Your task to perform on an android device: open the mobile data screen to see how much data has been used Image 0: 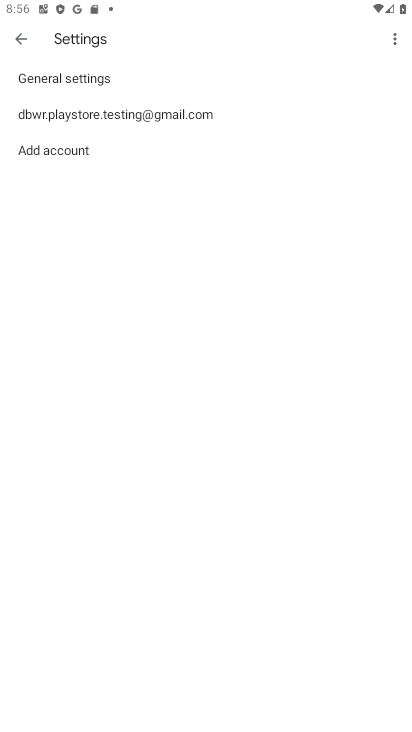
Step 0: press home button
Your task to perform on an android device: open the mobile data screen to see how much data has been used Image 1: 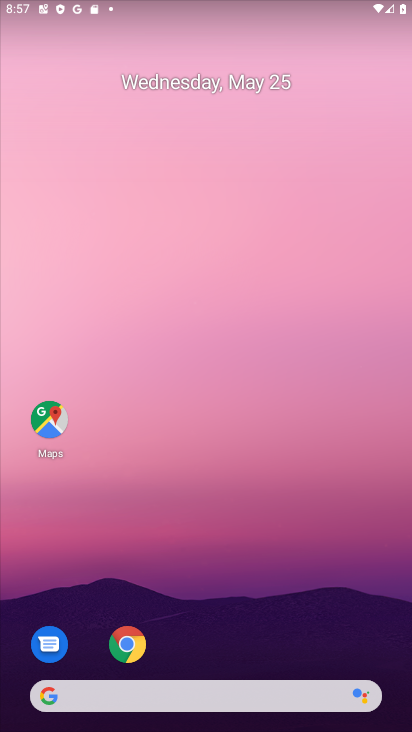
Step 1: drag from (226, 668) to (213, 98)
Your task to perform on an android device: open the mobile data screen to see how much data has been used Image 2: 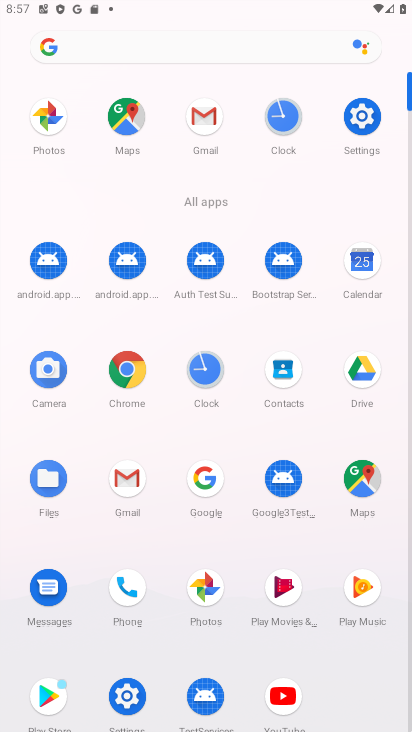
Step 2: click (359, 110)
Your task to perform on an android device: open the mobile data screen to see how much data has been used Image 3: 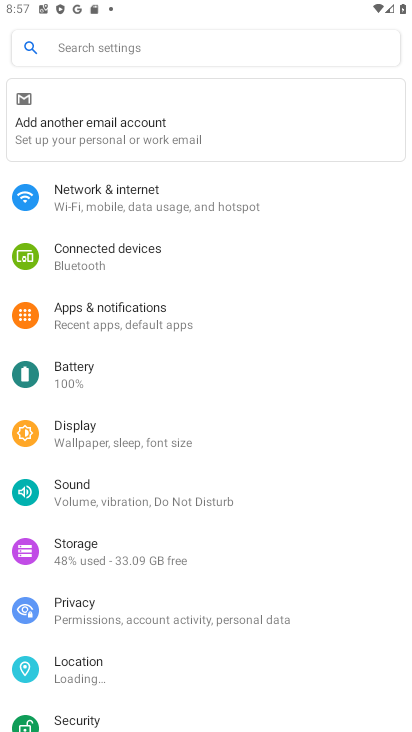
Step 3: click (171, 191)
Your task to perform on an android device: open the mobile data screen to see how much data has been used Image 4: 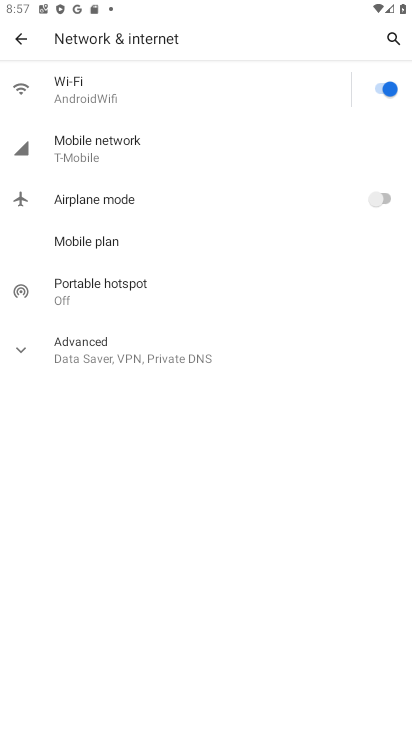
Step 4: click (124, 154)
Your task to perform on an android device: open the mobile data screen to see how much data has been used Image 5: 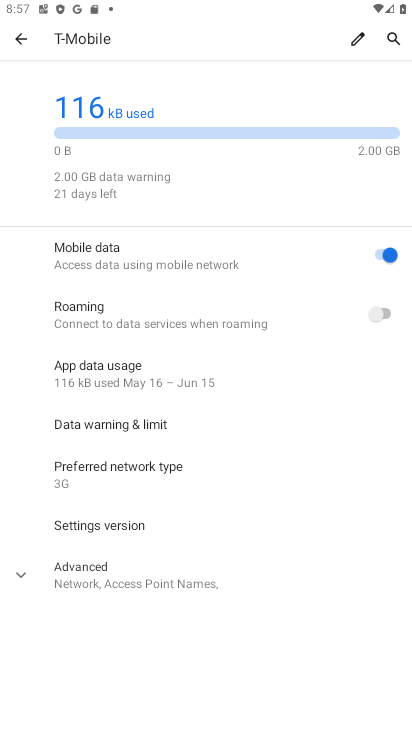
Step 5: click (155, 367)
Your task to perform on an android device: open the mobile data screen to see how much data has been used Image 6: 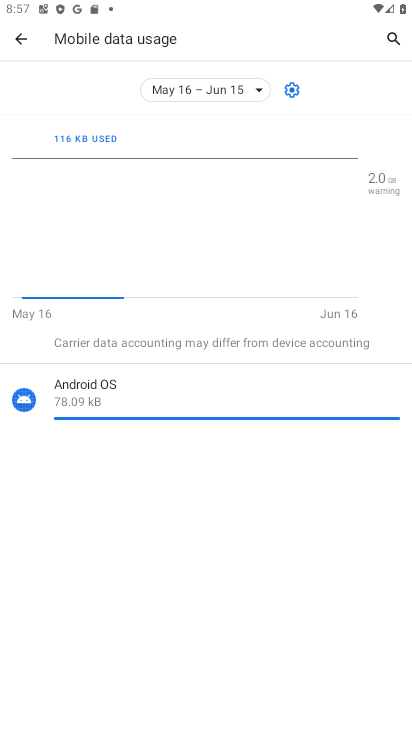
Step 6: task complete